Your task to perform on an android device: turn smart compose on in the gmail app Image 0: 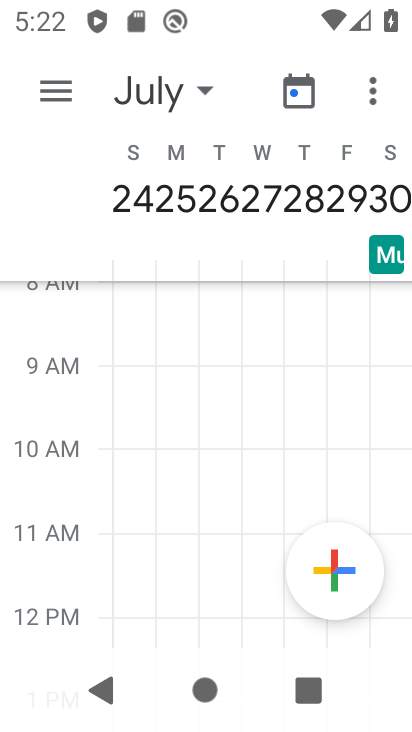
Step 0: press back button
Your task to perform on an android device: turn smart compose on in the gmail app Image 1: 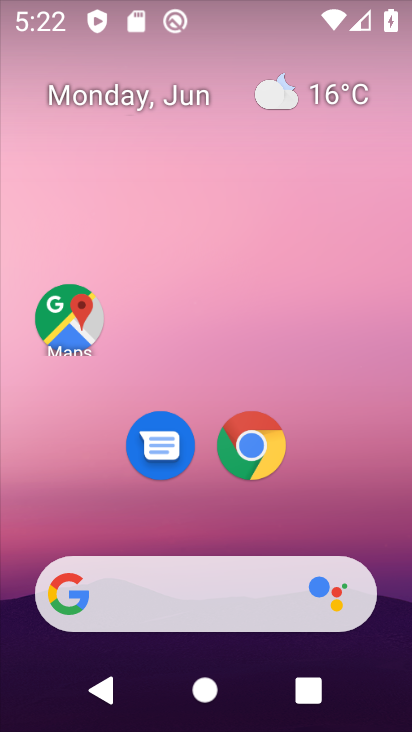
Step 1: drag from (329, 531) to (258, 98)
Your task to perform on an android device: turn smart compose on in the gmail app Image 2: 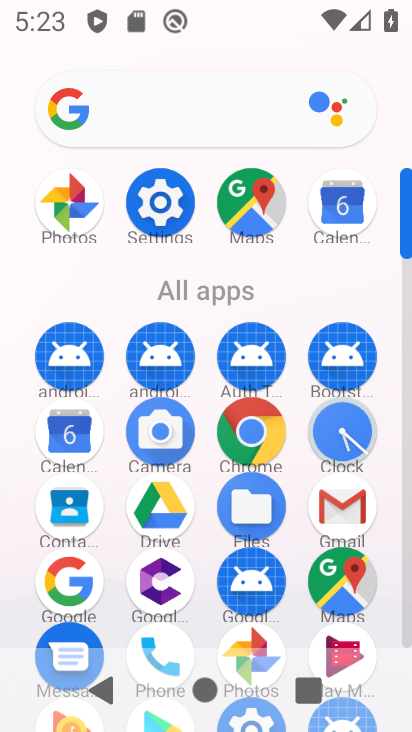
Step 2: click (338, 504)
Your task to perform on an android device: turn smart compose on in the gmail app Image 3: 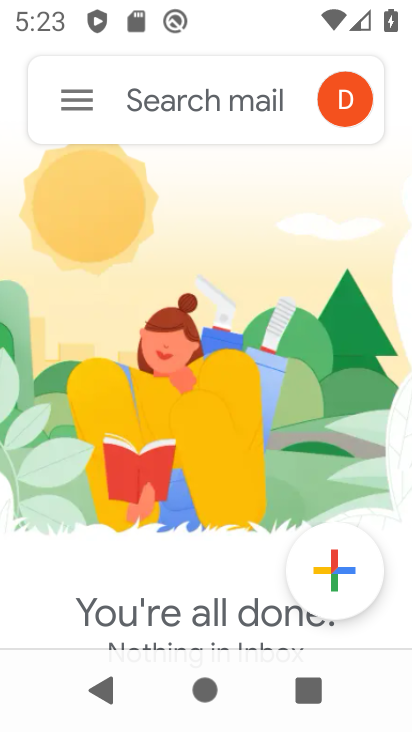
Step 3: click (75, 99)
Your task to perform on an android device: turn smart compose on in the gmail app Image 4: 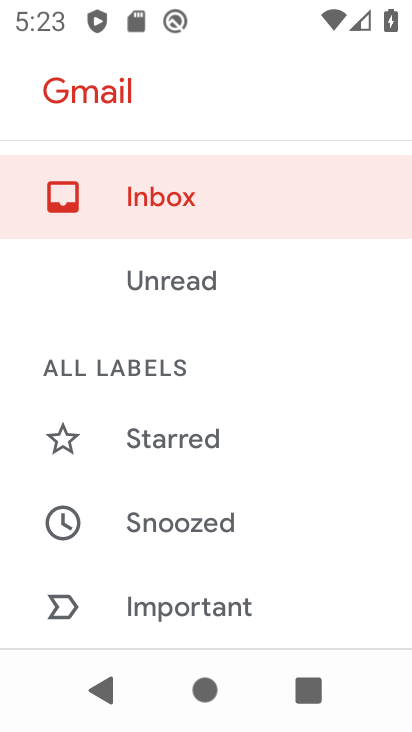
Step 4: drag from (218, 492) to (256, 309)
Your task to perform on an android device: turn smart compose on in the gmail app Image 5: 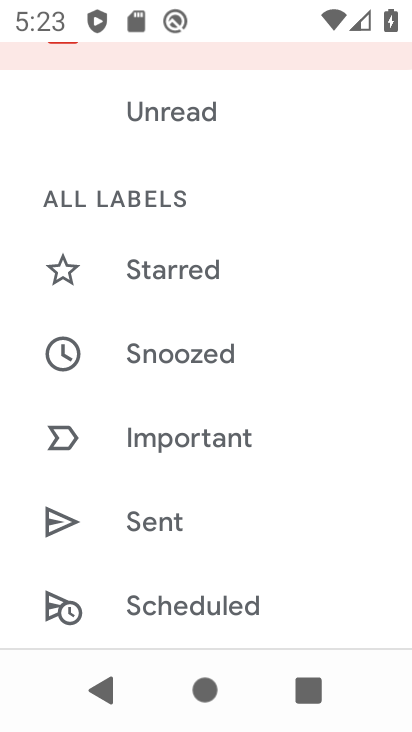
Step 5: drag from (190, 454) to (254, 371)
Your task to perform on an android device: turn smart compose on in the gmail app Image 6: 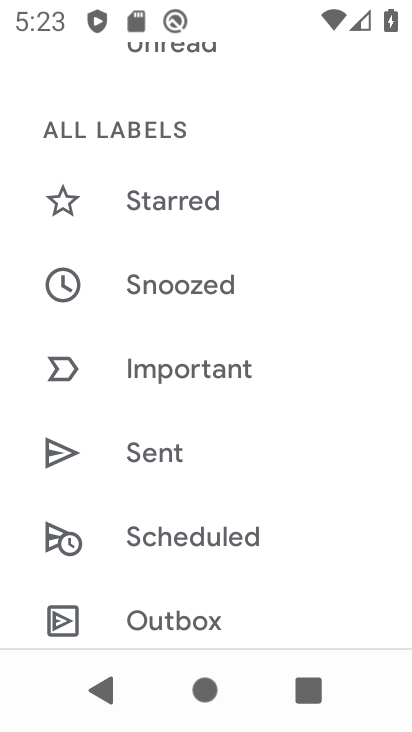
Step 6: drag from (150, 492) to (245, 371)
Your task to perform on an android device: turn smart compose on in the gmail app Image 7: 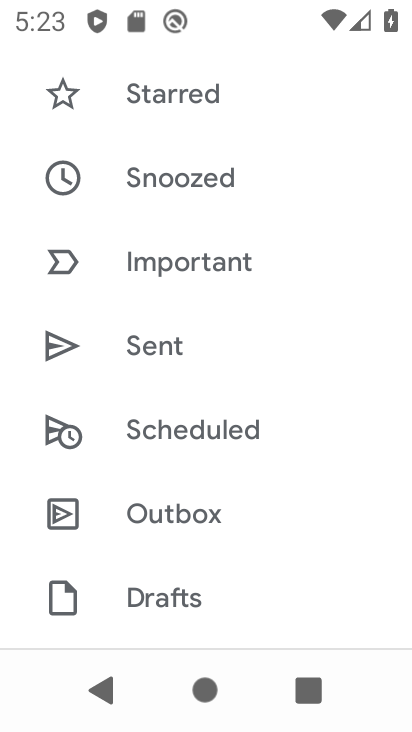
Step 7: drag from (147, 480) to (268, 342)
Your task to perform on an android device: turn smart compose on in the gmail app Image 8: 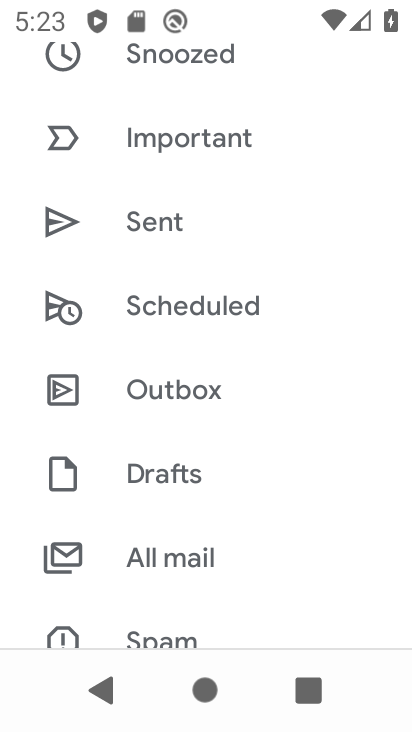
Step 8: drag from (151, 513) to (249, 385)
Your task to perform on an android device: turn smart compose on in the gmail app Image 9: 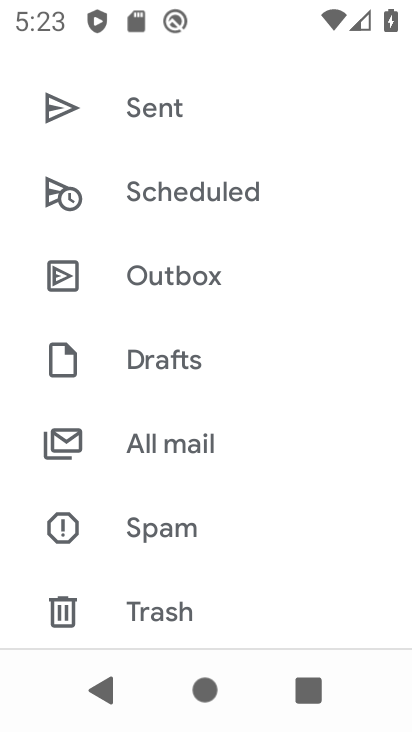
Step 9: drag from (148, 503) to (211, 391)
Your task to perform on an android device: turn smart compose on in the gmail app Image 10: 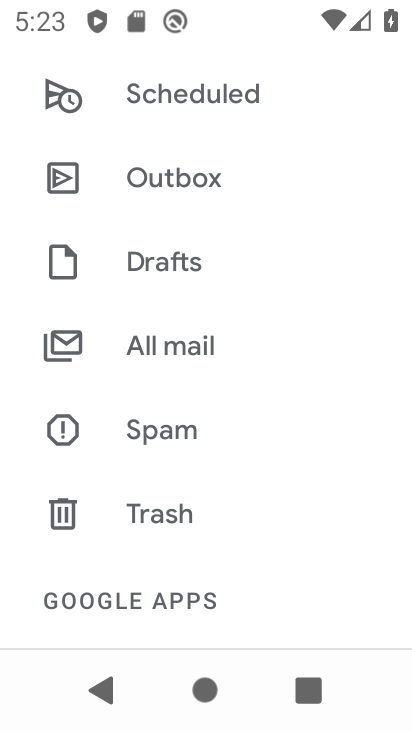
Step 10: drag from (148, 552) to (248, 380)
Your task to perform on an android device: turn smart compose on in the gmail app Image 11: 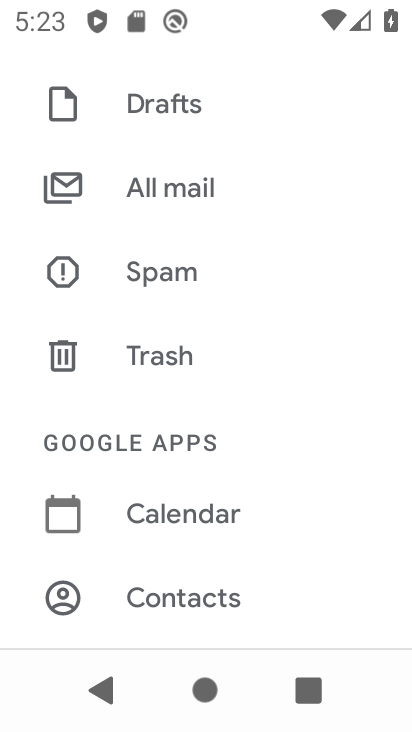
Step 11: drag from (162, 561) to (275, 353)
Your task to perform on an android device: turn smart compose on in the gmail app Image 12: 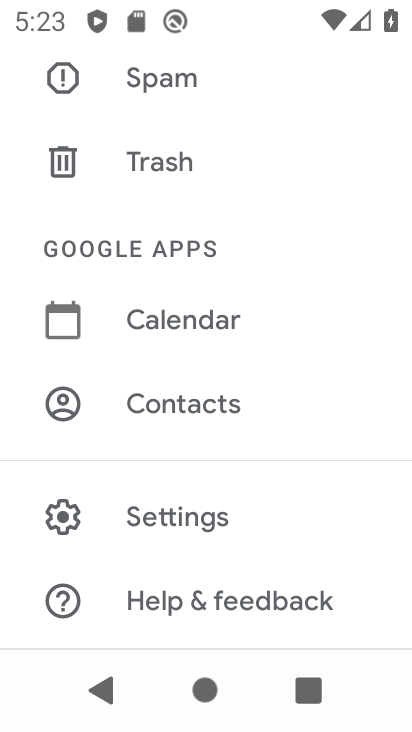
Step 12: click (189, 512)
Your task to perform on an android device: turn smart compose on in the gmail app Image 13: 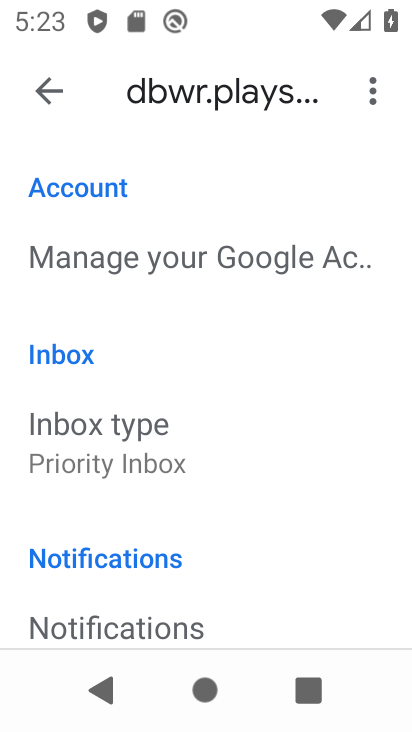
Step 13: task complete